Your task to perform on an android device: change text size in settings app Image 0: 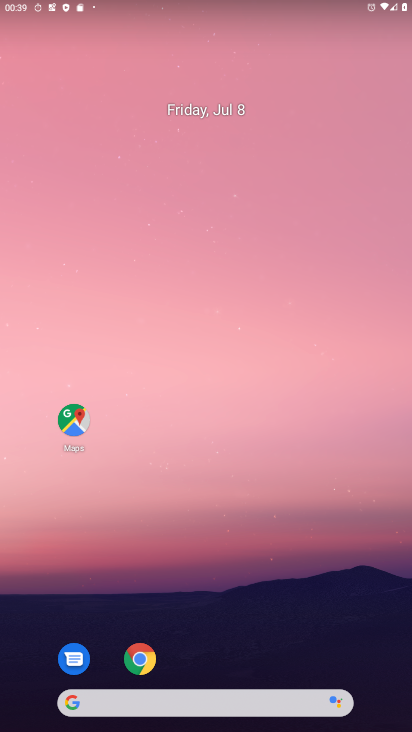
Step 0: drag from (286, 12) to (390, 588)
Your task to perform on an android device: change text size in settings app Image 1: 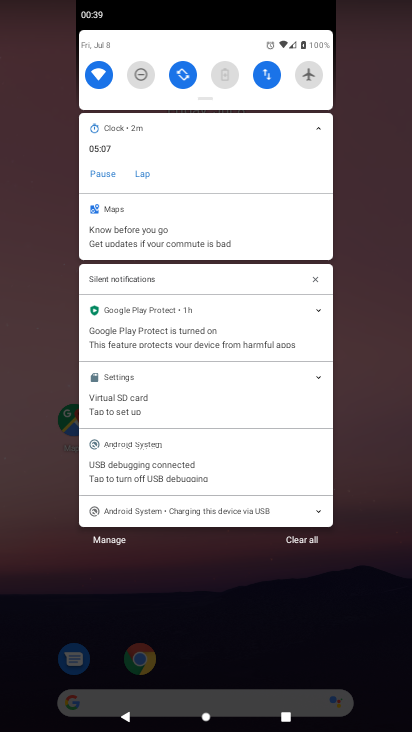
Step 1: drag from (195, 44) to (236, 593)
Your task to perform on an android device: change text size in settings app Image 2: 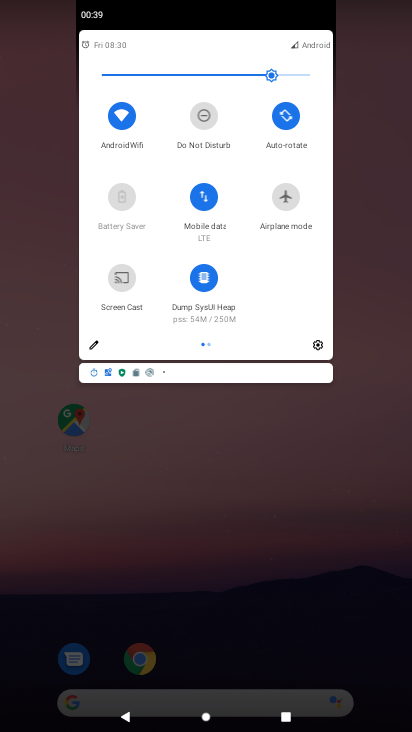
Step 2: click (317, 341)
Your task to perform on an android device: change text size in settings app Image 3: 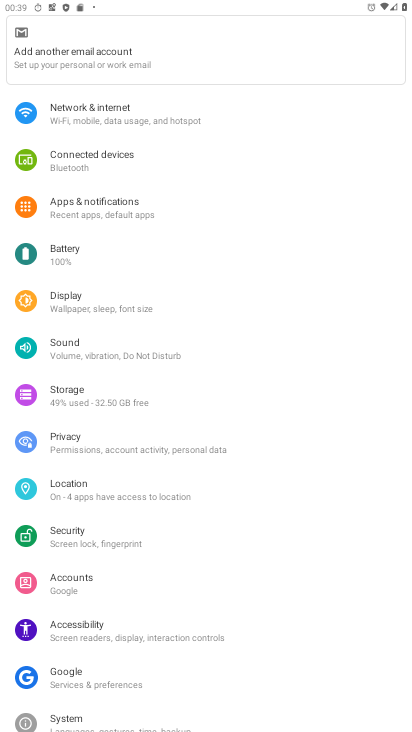
Step 3: click (111, 307)
Your task to perform on an android device: change text size in settings app Image 4: 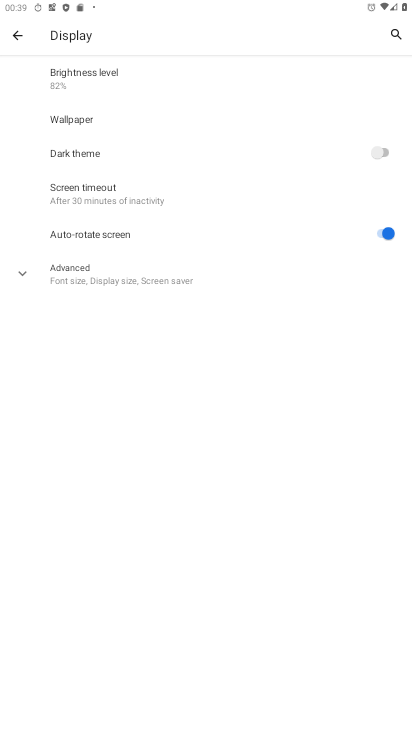
Step 4: click (133, 283)
Your task to perform on an android device: change text size in settings app Image 5: 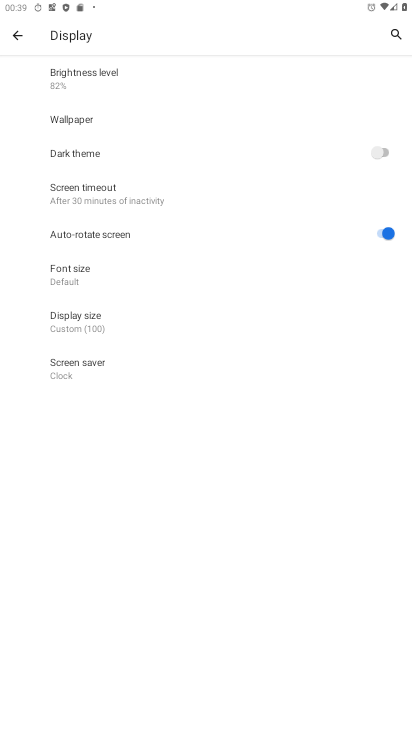
Step 5: click (133, 283)
Your task to perform on an android device: change text size in settings app Image 6: 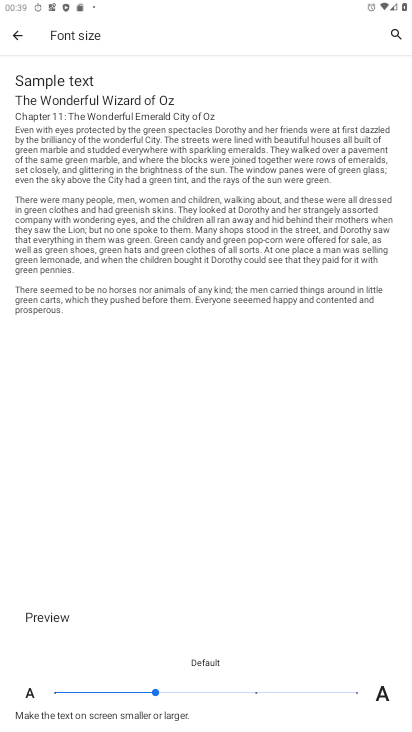
Step 6: click (55, 692)
Your task to perform on an android device: change text size in settings app Image 7: 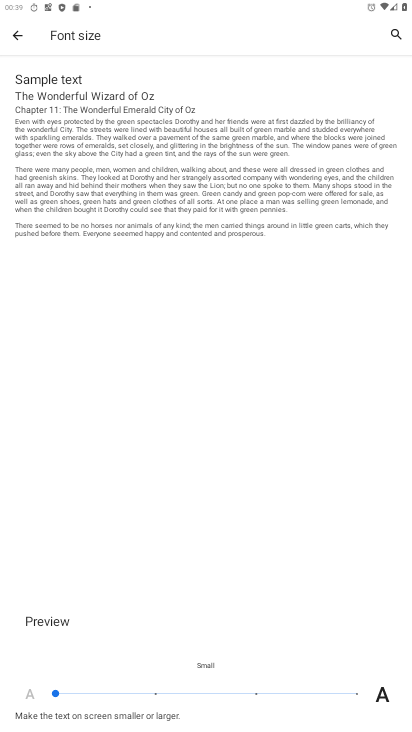
Step 7: task complete